Your task to perform on an android device: What's the weather going to be this weekend? Image 0: 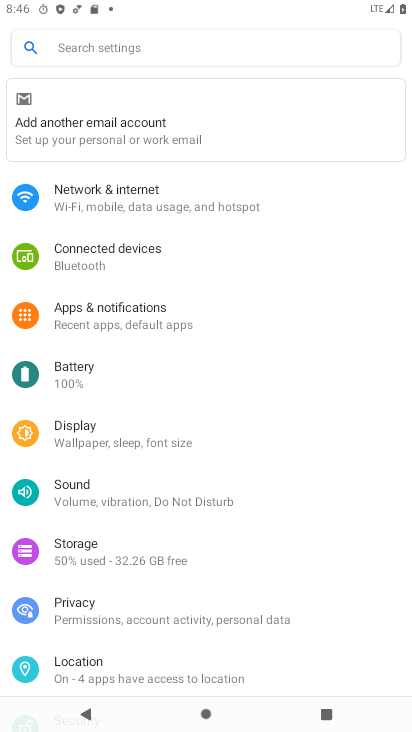
Step 0: press home button
Your task to perform on an android device: What's the weather going to be this weekend? Image 1: 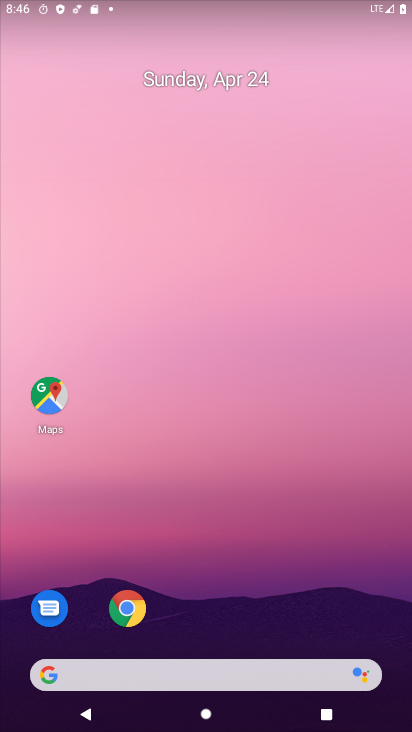
Step 1: click (218, 675)
Your task to perform on an android device: What's the weather going to be this weekend? Image 2: 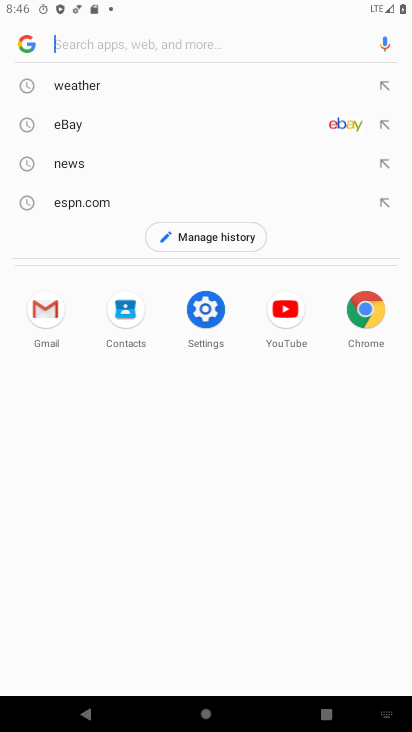
Step 2: click (29, 38)
Your task to perform on an android device: What's the weather going to be this weekend? Image 3: 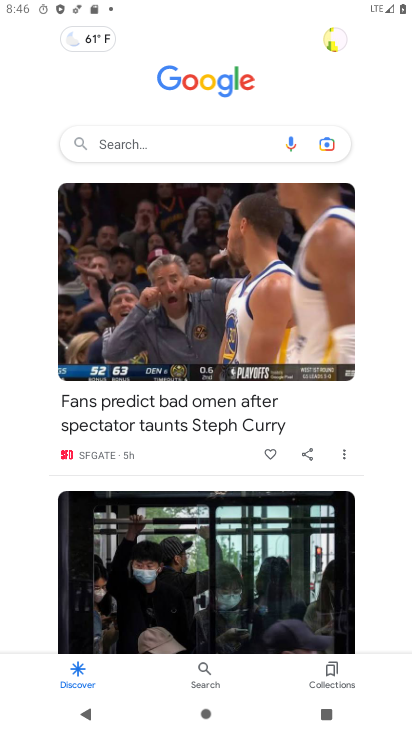
Step 3: click (77, 34)
Your task to perform on an android device: What's the weather going to be this weekend? Image 4: 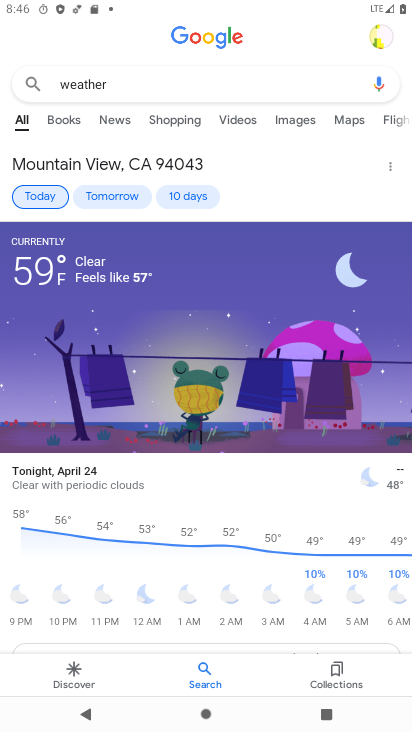
Step 4: click (195, 195)
Your task to perform on an android device: What's the weather going to be this weekend? Image 5: 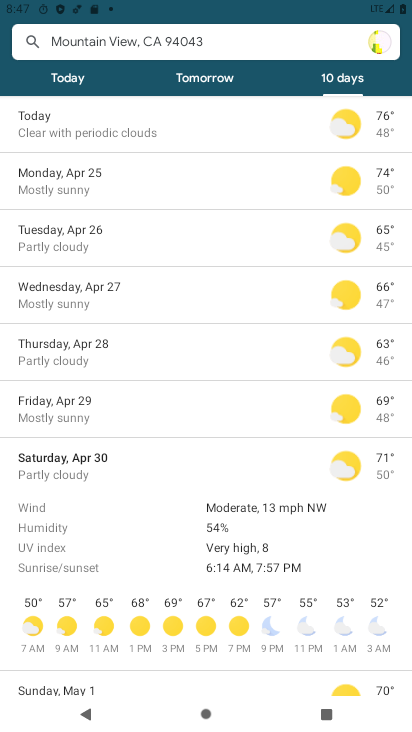
Step 5: task complete